Your task to perform on an android device: check data usage Image 0: 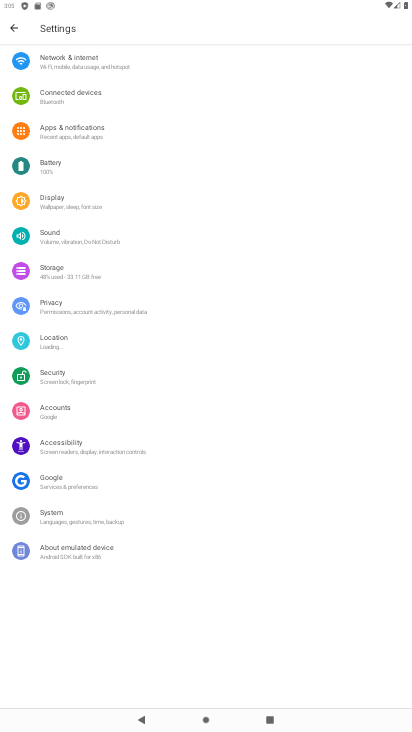
Step 0: click (125, 63)
Your task to perform on an android device: check data usage Image 1: 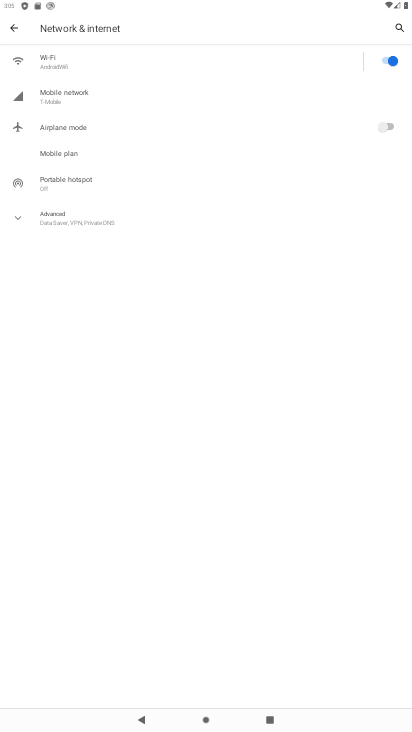
Step 1: click (115, 102)
Your task to perform on an android device: check data usage Image 2: 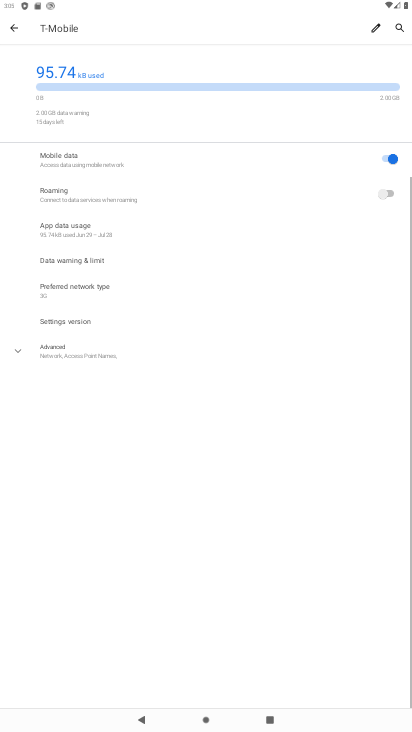
Step 2: click (136, 237)
Your task to perform on an android device: check data usage Image 3: 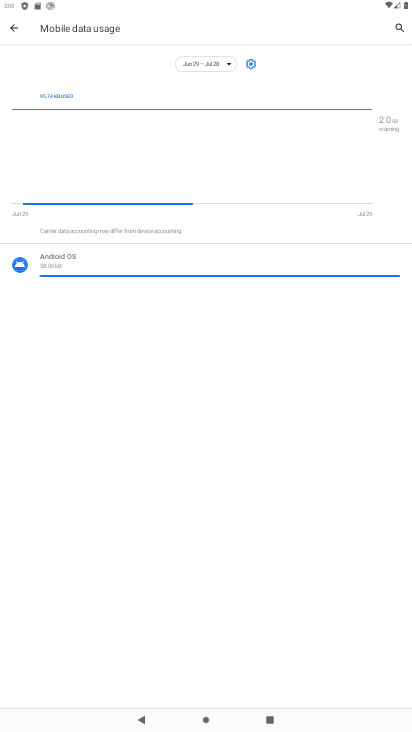
Step 3: task complete